Your task to perform on an android device: Go to Amazon Image 0: 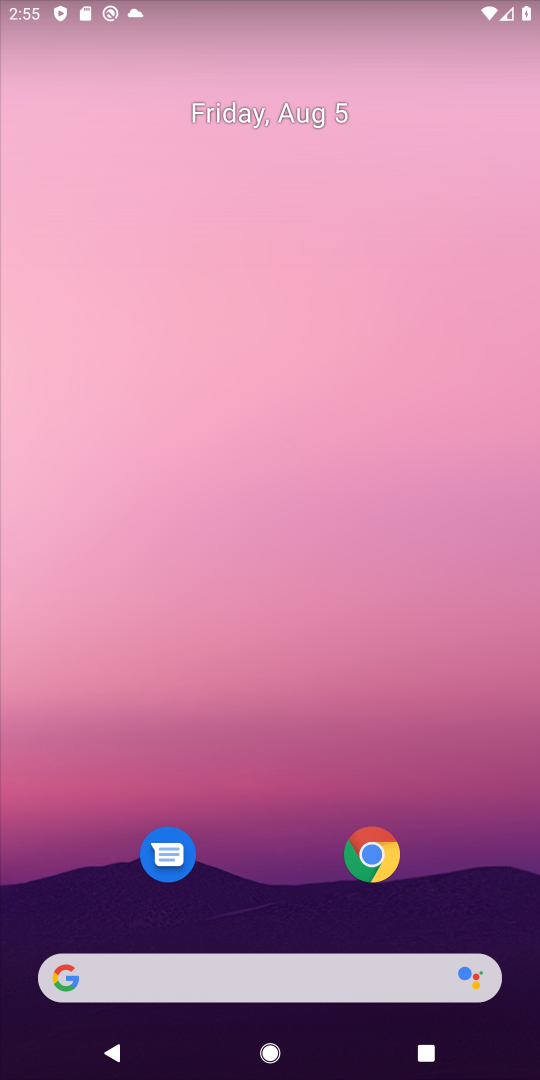
Step 0: press home button
Your task to perform on an android device: Go to Amazon Image 1: 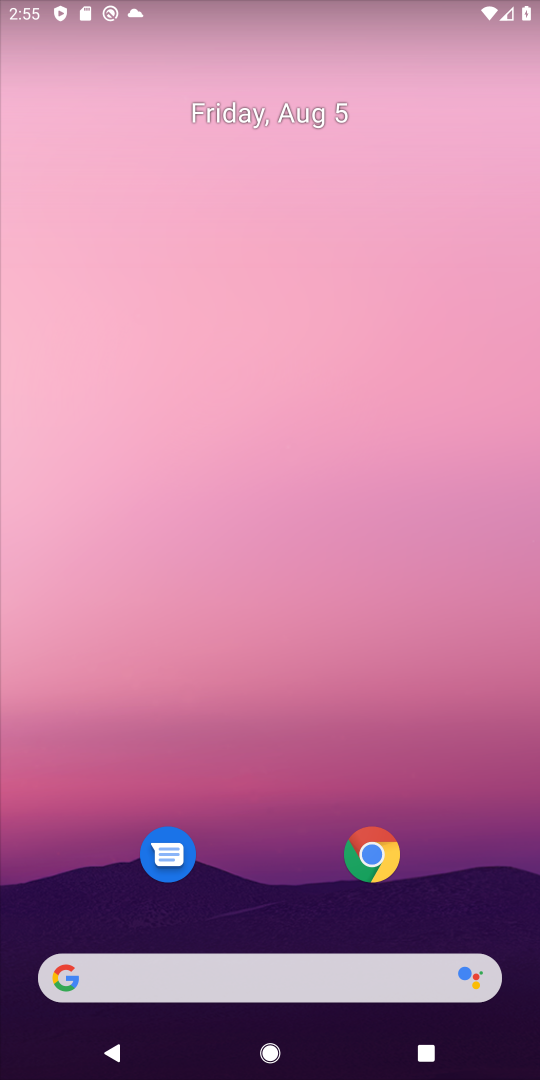
Step 1: click (138, 974)
Your task to perform on an android device: Go to Amazon Image 2: 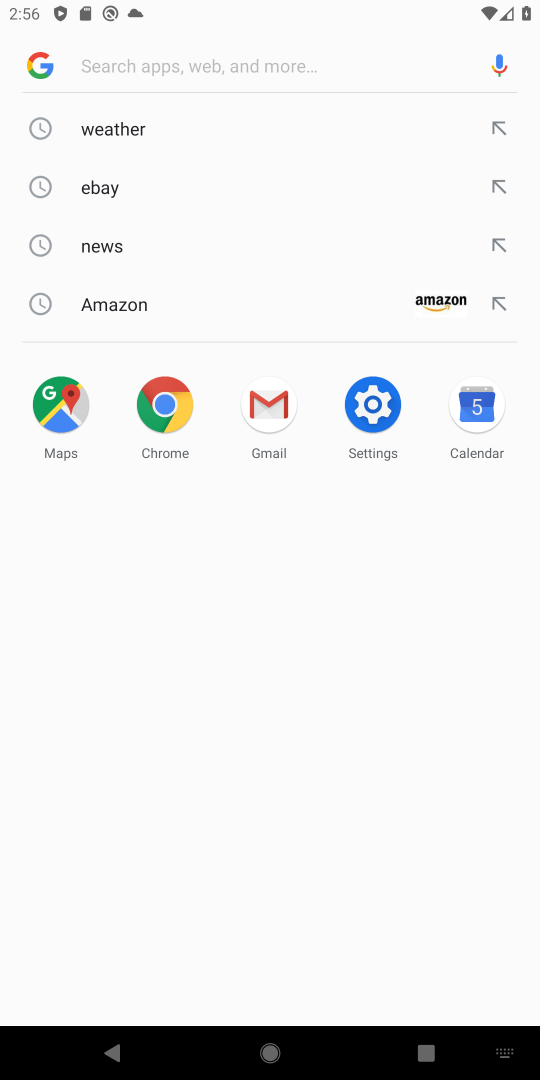
Step 2: click (109, 306)
Your task to perform on an android device: Go to Amazon Image 3: 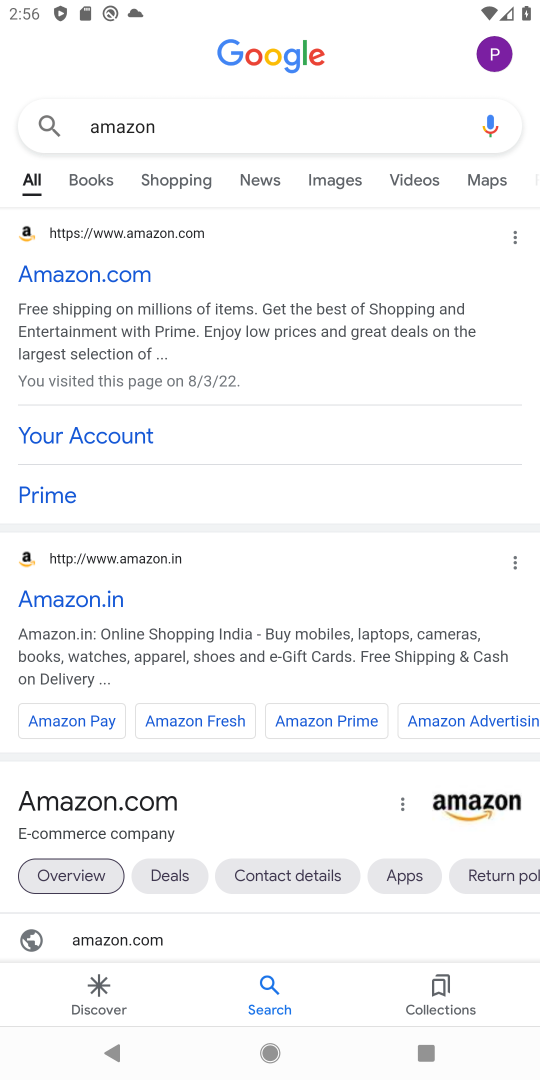
Step 3: task complete